Your task to perform on an android device: Open Google Chrome and open the bookmarks view Image 0: 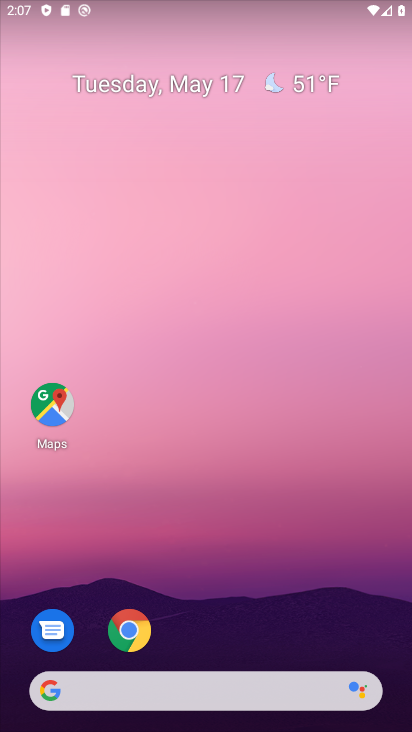
Step 0: click (120, 641)
Your task to perform on an android device: Open Google Chrome and open the bookmarks view Image 1: 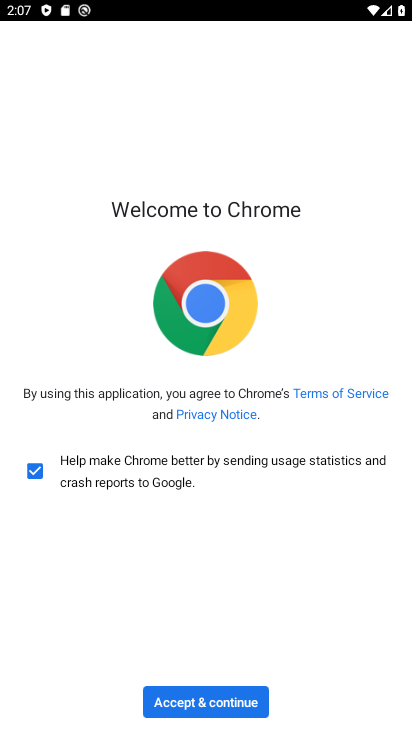
Step 1: click (188, 703)
Your task to perform on an android device: Open Google Chrome and open the bookmarks view Image 2: 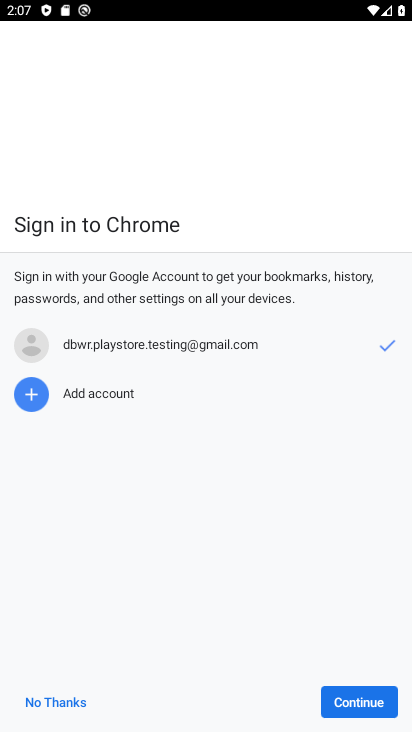
Step 2: click (367, 708)
Your task to perform on an android device: Open Google Chrome and open the bookmarks view Image 3: 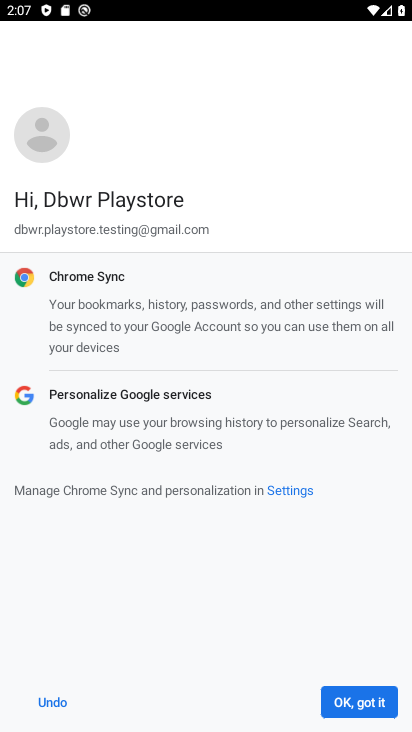
Step 3: click (357, 707)
Your task to perform on an android device: Open Google Chrome and open the bookmarks view Image 4: 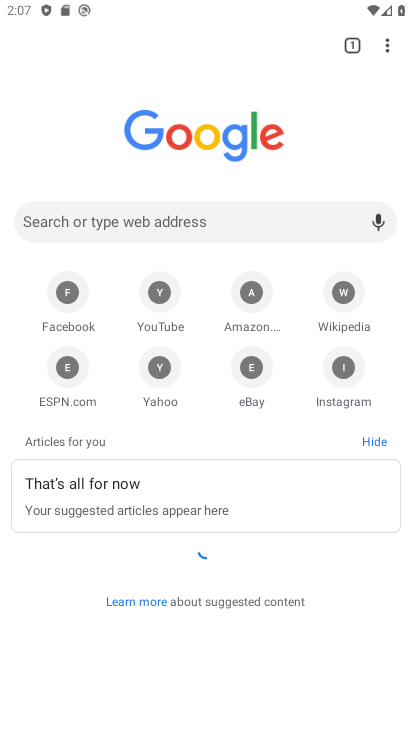
Step 4: click (388, 49)
Your task to perform on an android device: Open Google Chrome and open the bookmarks view Image 5: 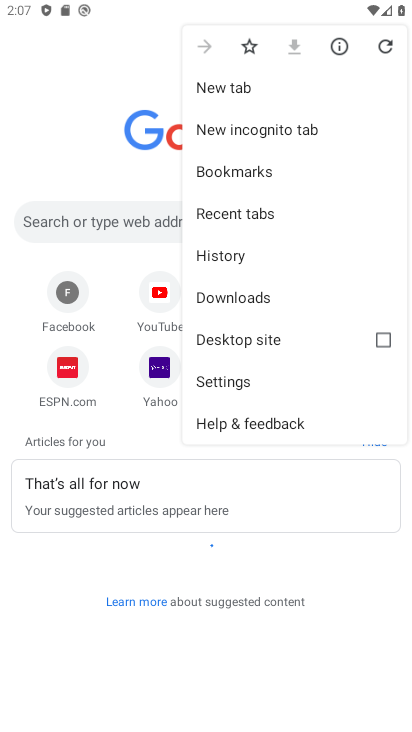
Step 5: click (247, 177)
Your task to perform on an android device: Open Google Chrome and open the bookmarks view Image 6: 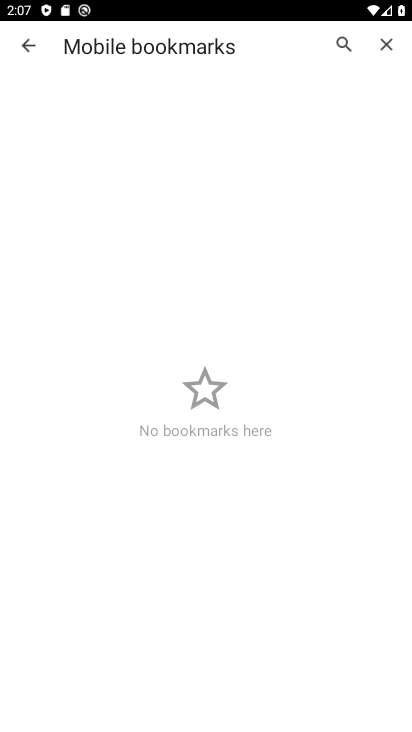
Step 6: task complete